Your task to perform on an android device: Open settings on Google Maps Image 0: 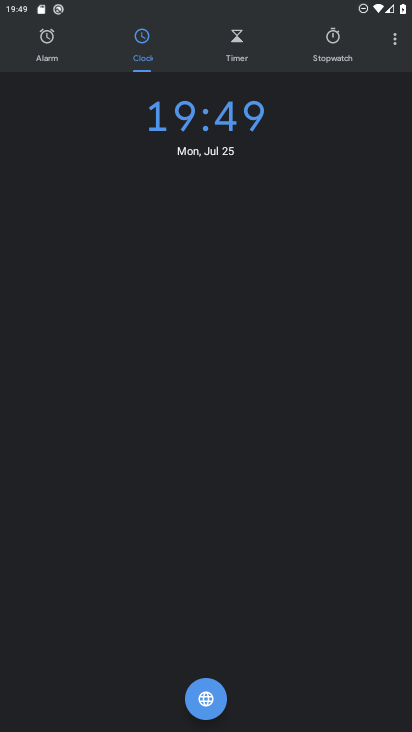
Step 0: press home button
Your task to perform on an android device: Open settings on Google Maps Image 1: 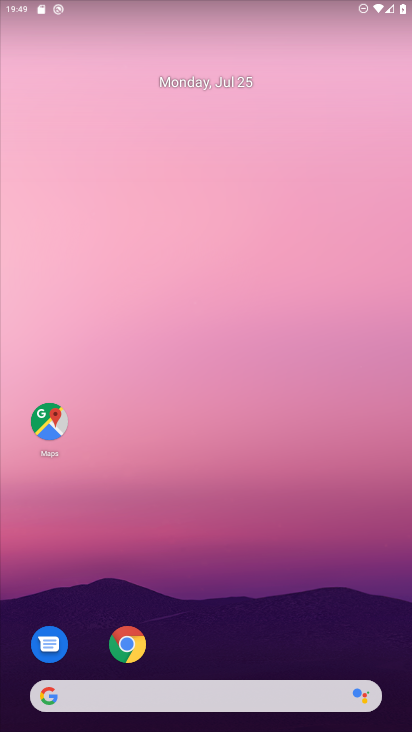
Step 1: click (49, 420)
Your task to perform on an android device: Open settings on Google Maps Image 2: 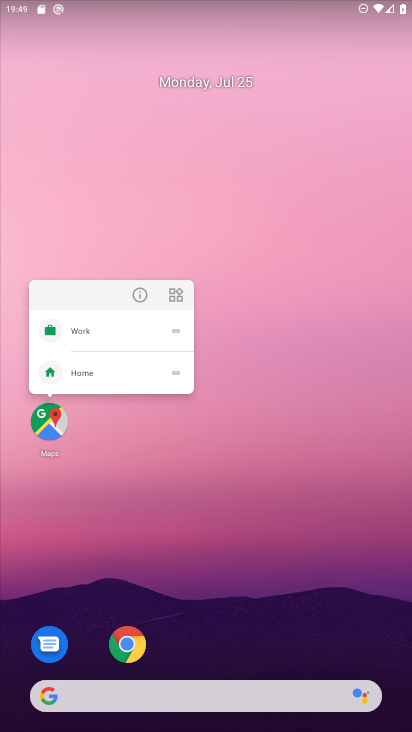
Step 2: click (51, 417)
Your task to perform on an android device: Open settings on Google Maps Image 3: 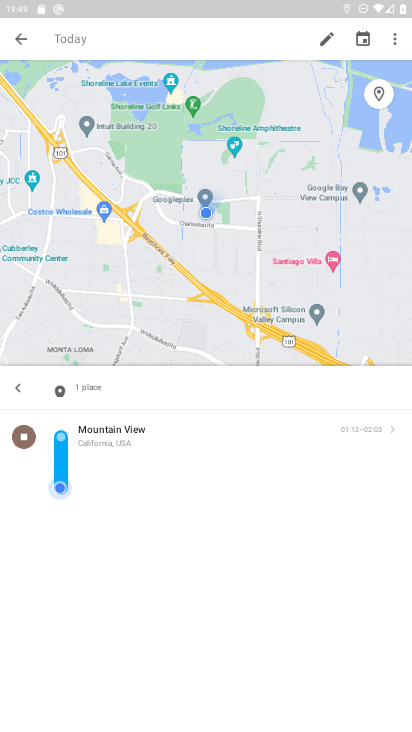
Step 3: click (25, 37)
Your task to perform on an android device: Open settings on Google Maps Image 4: 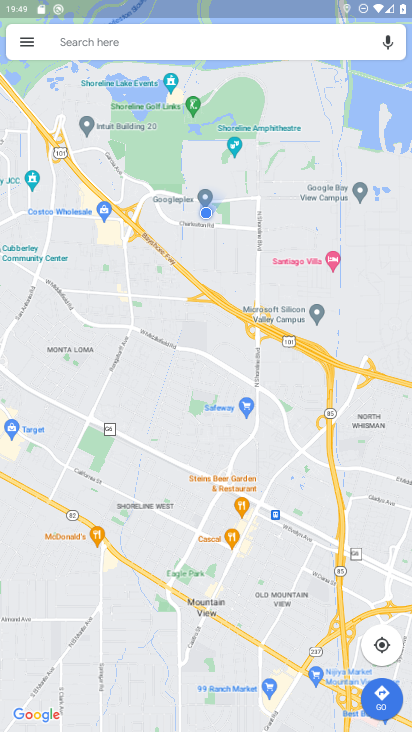
Step 4: click (25, 37)
Your task to perform on an android device: Open settings on Google Maps Image 5: 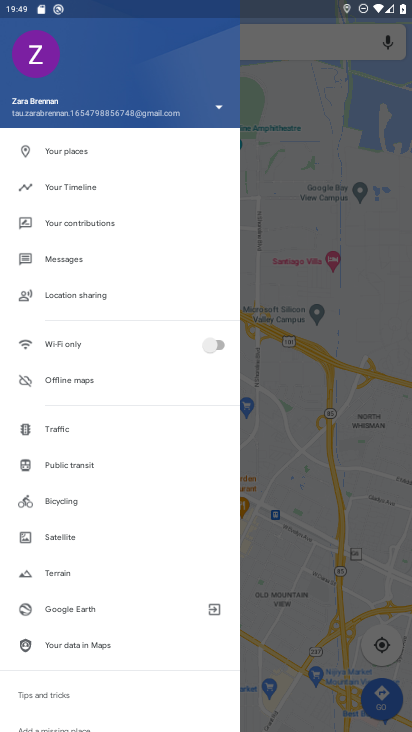
Step 5: drag from (93, 669) to (155, 70)
Your task to perform on an android device: Open settings on Google Maps Image 6: 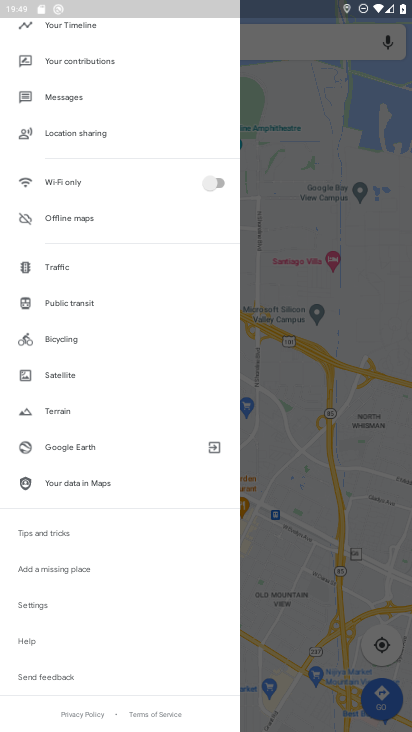
Step 6: click (57, 604)
Your task to perform on an android device: Open settings on Google Maps Image 7: 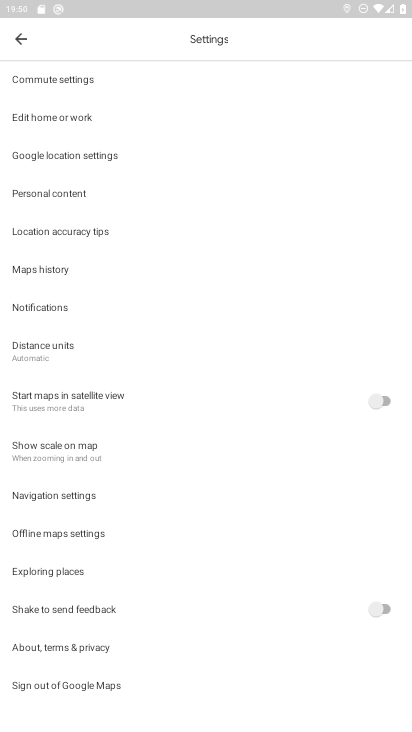
Step 7: task complete